Your task to perform on an android device: change the clock style Image 0: 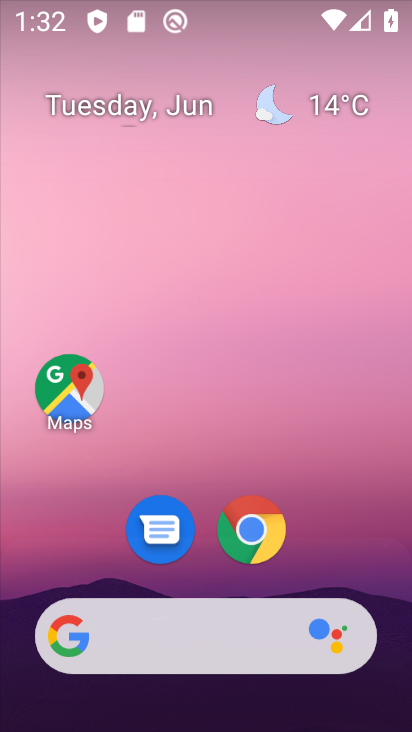
Step 0: drag from (290, 566) to (240, 112)
Your task to perform on an android device: change the clock style Image 1: 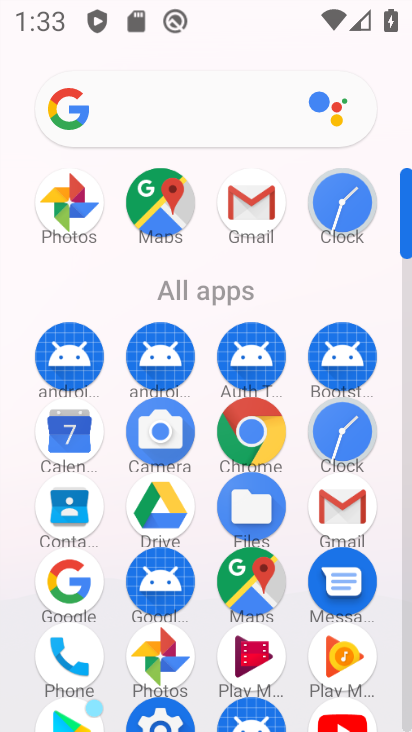
Step 1: click (342, 435)
Your task to perform on an android device: change the clock style Image 2: 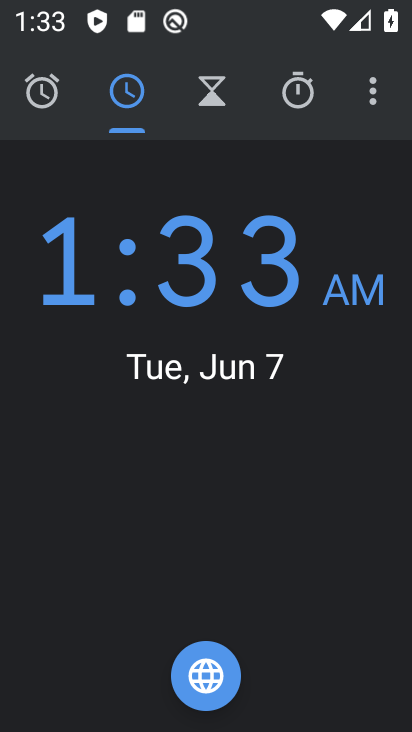
Step 2: click (369, 96)
Your task to perform on an android device: change the clock style Image 3: 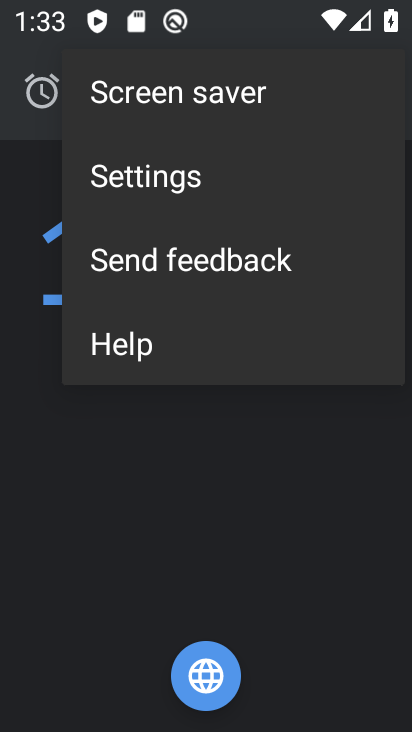
Step 3: click (214, 175)
Your task to perform on an android device: change the clock style Image 4: 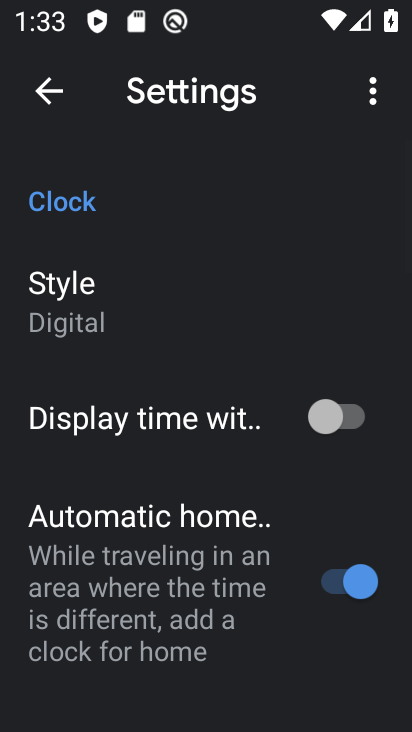
Step 4: click (141, 302)
Your task to perform on an android device: change the clock style Image 5: 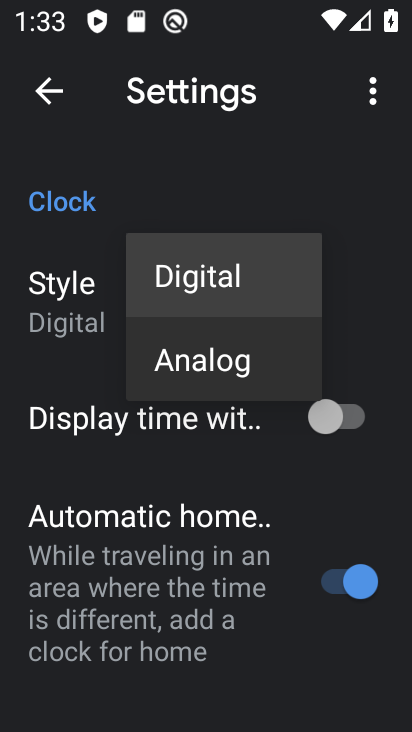
Step 5: click (207, 357)
Your task to perform on an android device: change the clock style Image 6: 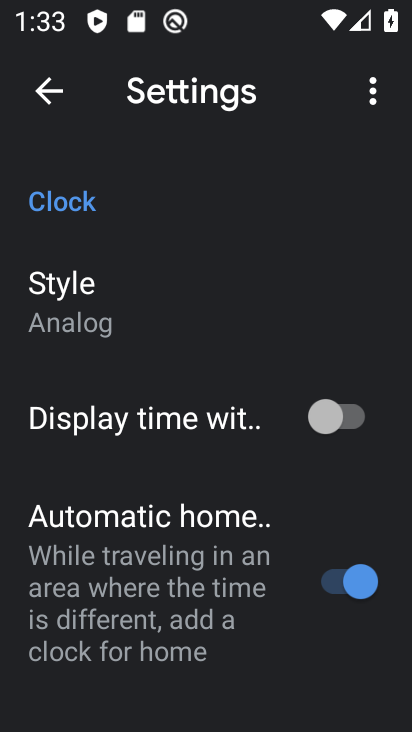
Step 6: task complete